Your task to perform on an android device: Open notification settings Image 0: 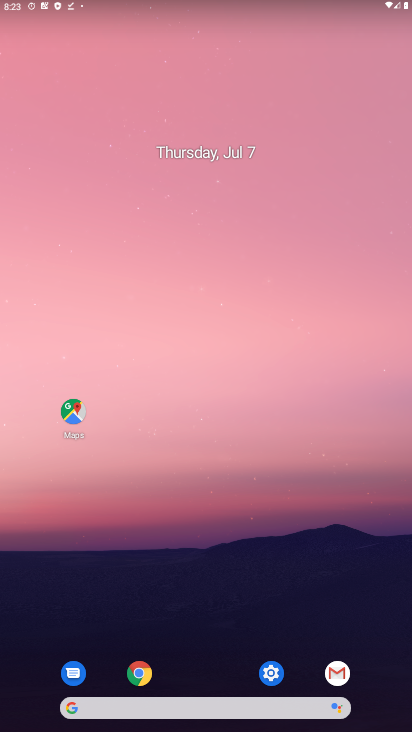
Step 0: click (268, 669)
Your task to perform on an android device: Open notification settings Image 1: 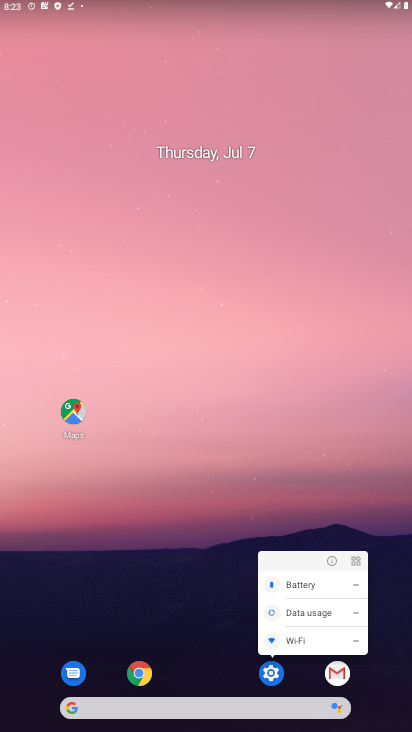
Step 1: click (271, 664)
Your task to perform on an android device: Open notification settings Image 2: 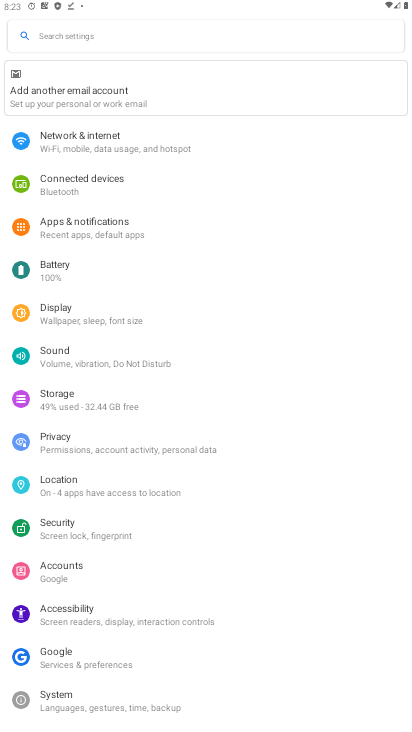
Step 2: click (103, 32)
Your task to perform on an android device: Open notification settings Image 3: 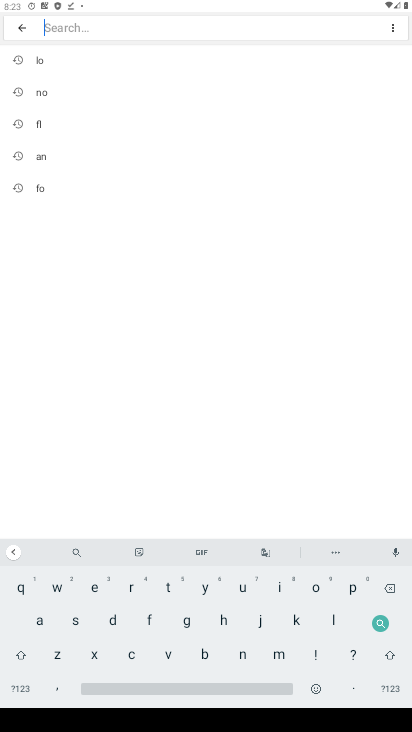
Step 3: click (239, 653)
Your task to perform on an android device: Open notification settings Image 4: 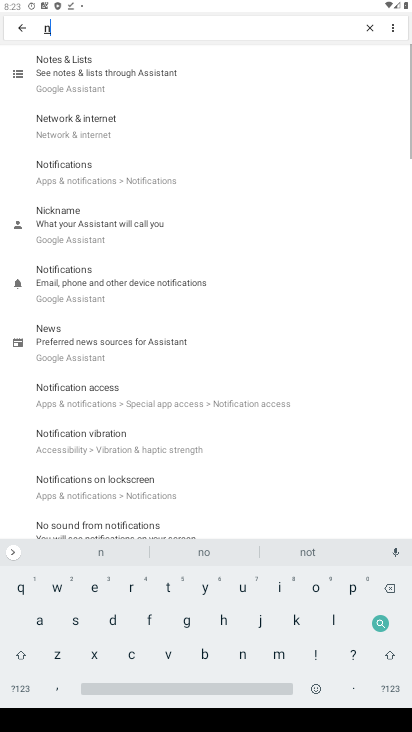
Step 4: click (313, 583)
Your task to perform on an android device: Open notification settings Image 5: 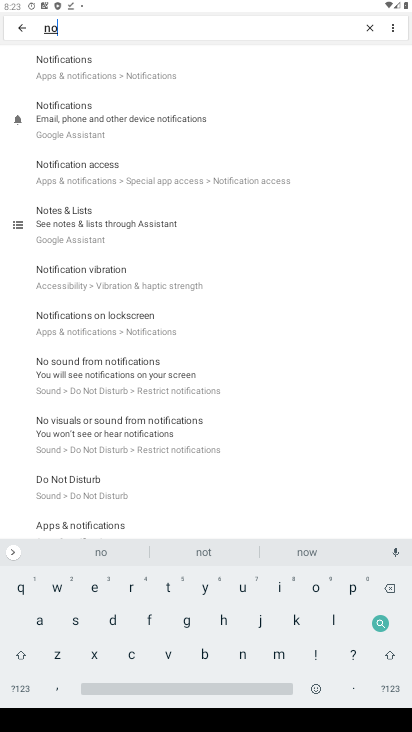
Step 5: click (91, 76)
Your task to perform on an android device: Open notification settings Image 6: 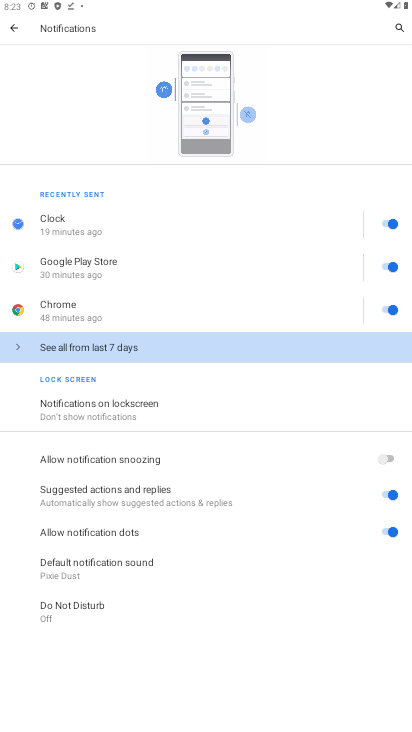
Step 6: click (136, 398)
Your task to perform on an android device: Open notification settings Image 7: 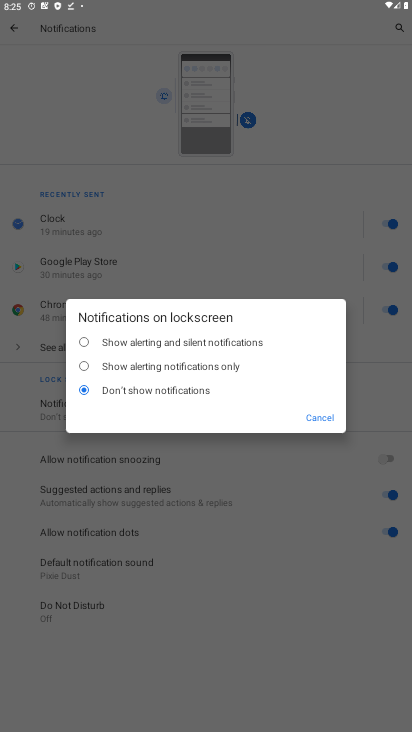
Step 7: task complete